Your task to perform on an android device: toggle data saver in the chrome app Image 0: 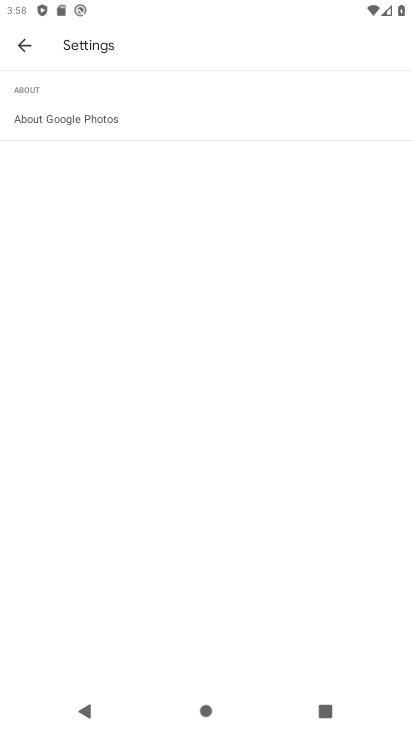
Step 0: press home button
Your task to perform on an android device: toggle data saver in the chrome app Image 1: 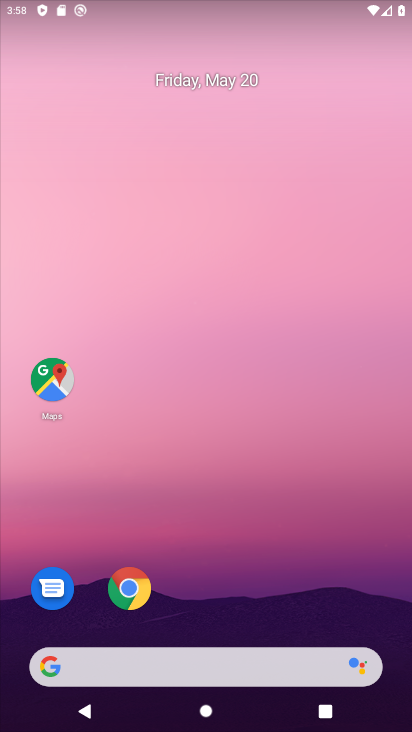
Step 1: click (126, 584)
Your task to perform on an android device: toggle data saver in the chrome app Image 2: 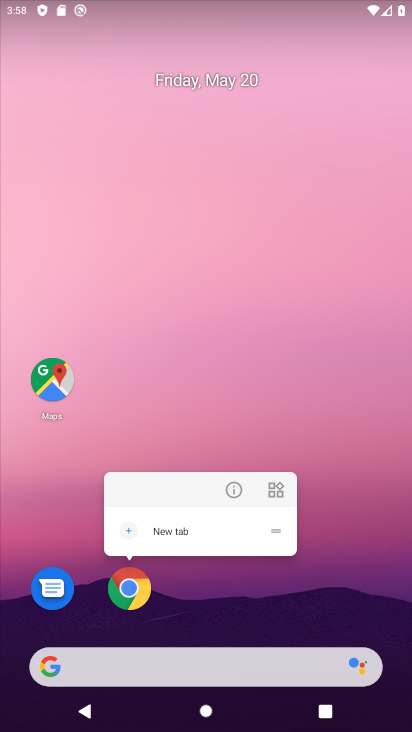
Step 2: click (127, 589)
Your task to perform on an android device: toggle data saver in the chrome app Image 3: 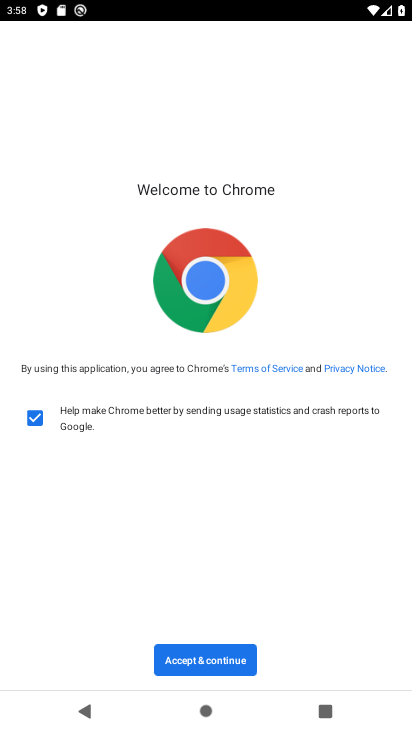
Step 3: click (225, 657)
Your task to perform on an android device: toggle data saver in the chrome app Image 4: 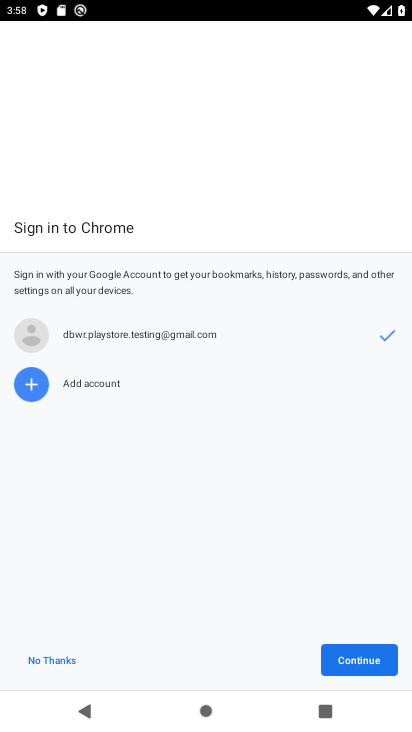
Step 4: click (367, 654)
Your task to perform on an android device: toggle data saver in the chrome app Image 5: 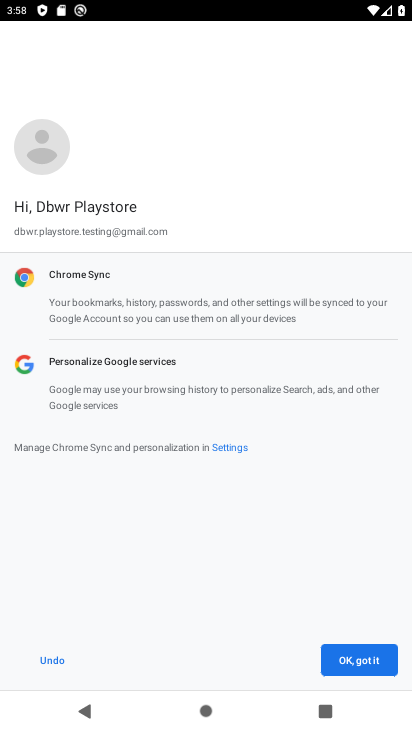
Step 5: click (365, 654)
Your task to perform on an android device: toggle data saver in the chrome app Image 6: 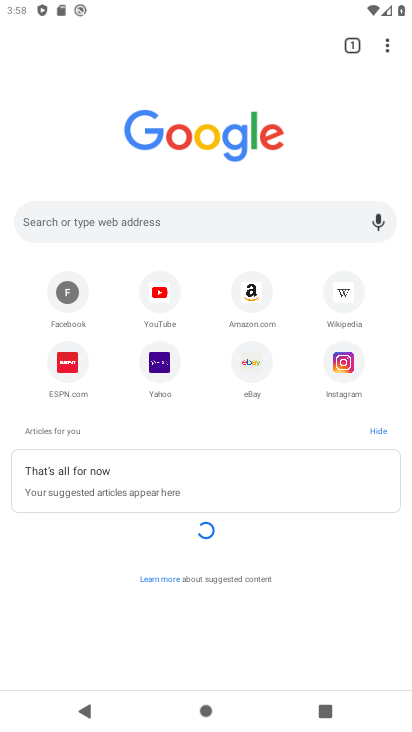
Step 6: drag from (387, 36) to (232, 375)
Your task to perform on an android device: toggle data saver in the chrome app Image 7: 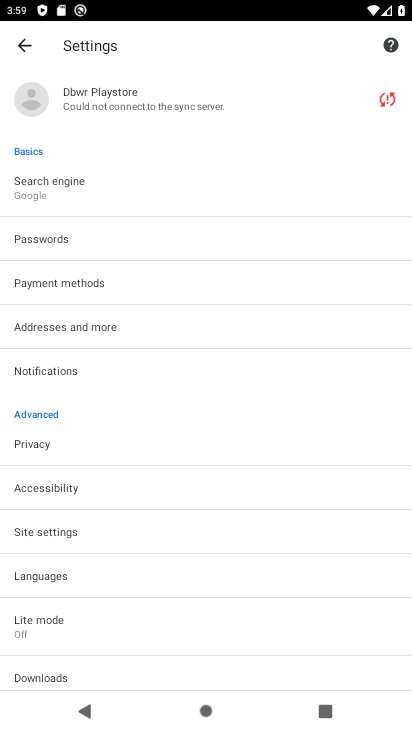
Step 7: click (21, 614)
Your task to perform on an android device: toggle data saver in the chrome app Image 8: 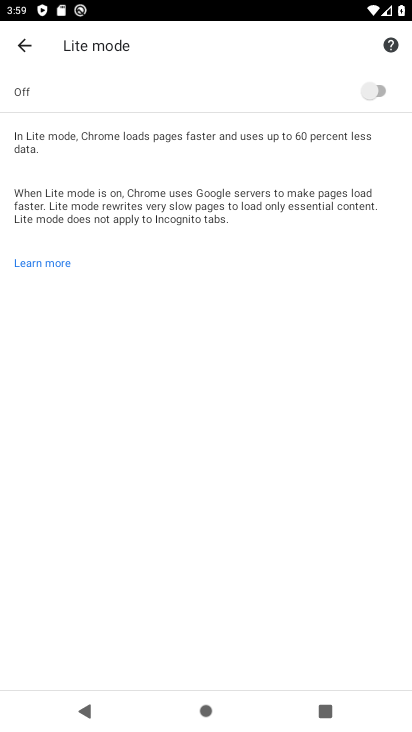
Step 8: click (364, 87)
Your task to perform on an android device: toggle data saver in the chrome app Image 9: 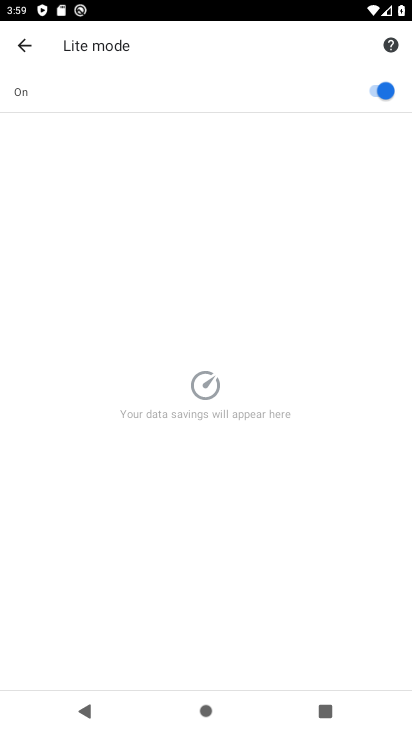
Step 9: task complete